Your task to perform on an android device: What's the weather going to be tomorrow? Image 0: 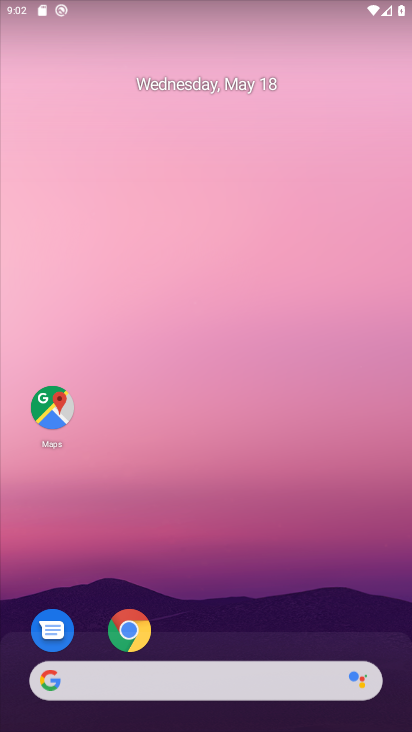
Step 0: click (196, 674)
Your task to perform on an android device: What's the weather going to be tomorrow? Image 1: 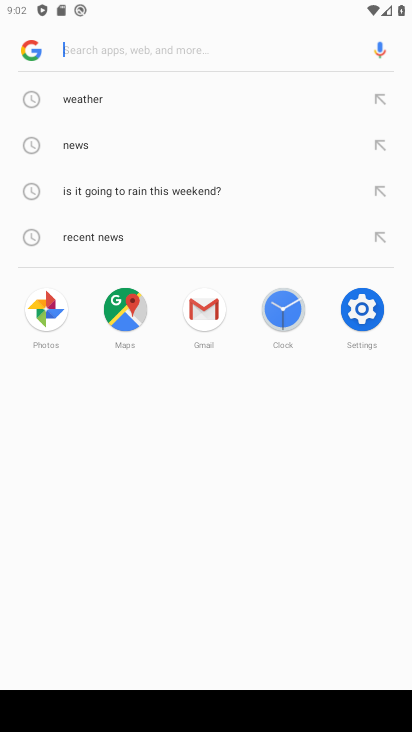
Step 1: click (91, 105)
Your task to perform on an android device: What's the weather going to be tomorrow? Image 2: 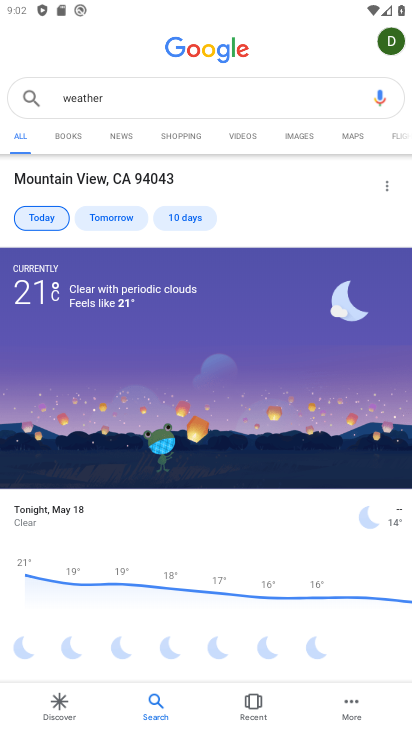
Step 2: task complete